Your task to perform on an android device: What's the weather? Image 0: 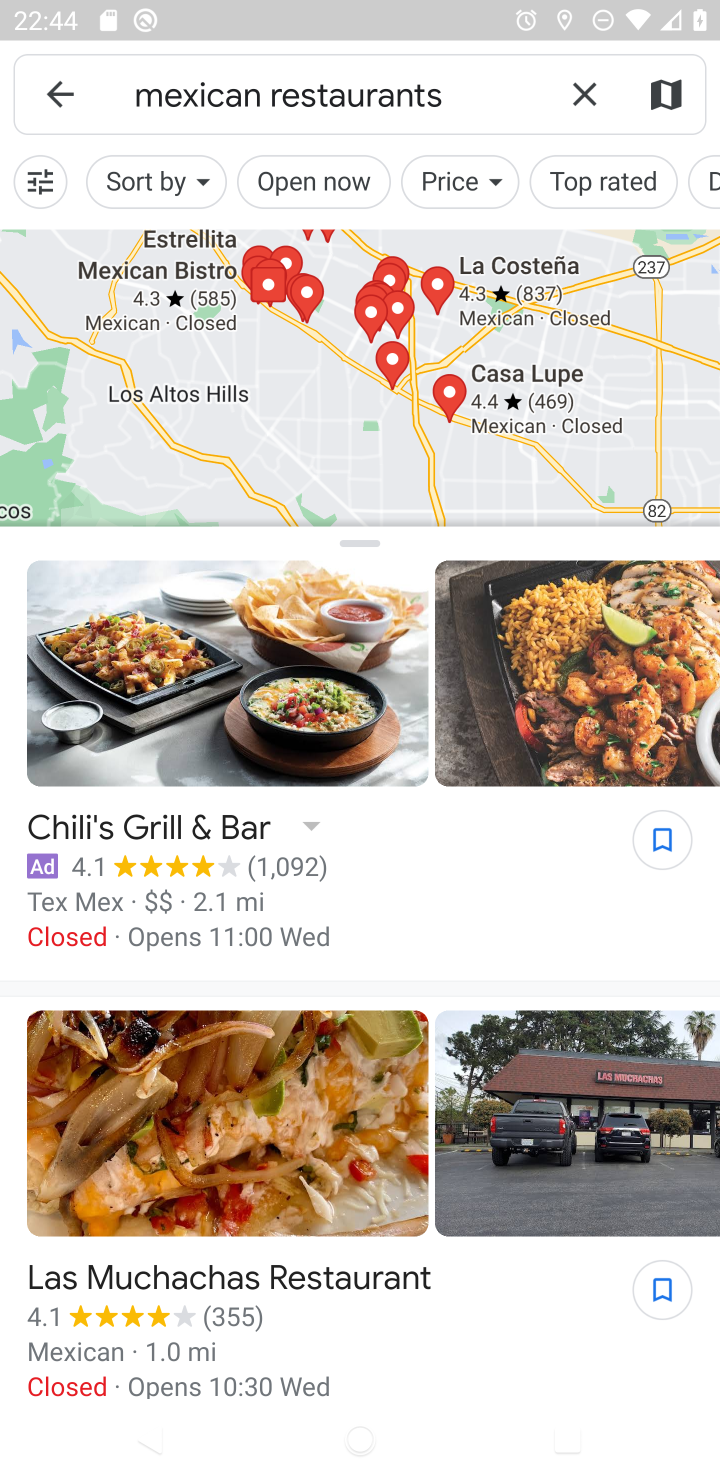
Step 0: press home button
Your task to perform on an android device: What's the weather? Image 1: 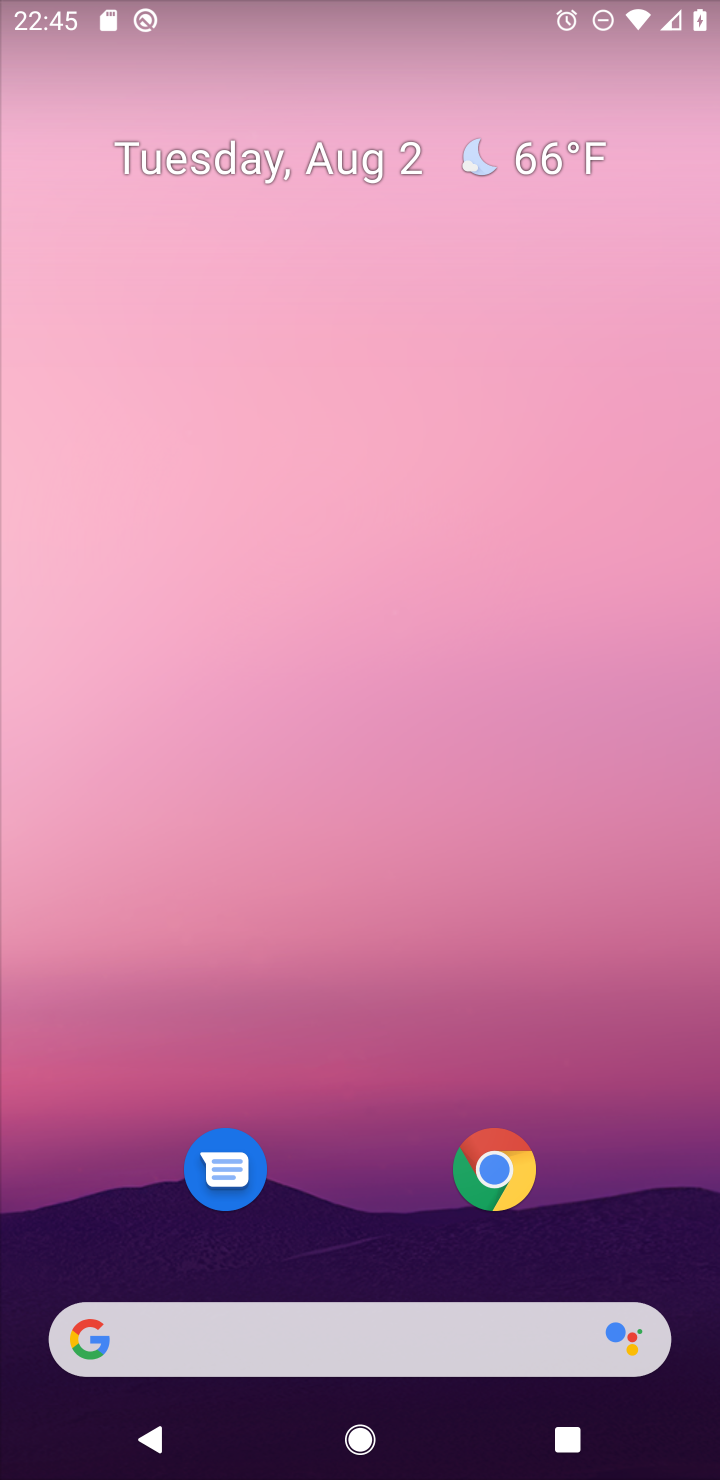
Step 1: click (471, 155)
Your task to perform on an android device: What's the weather? Image 2: 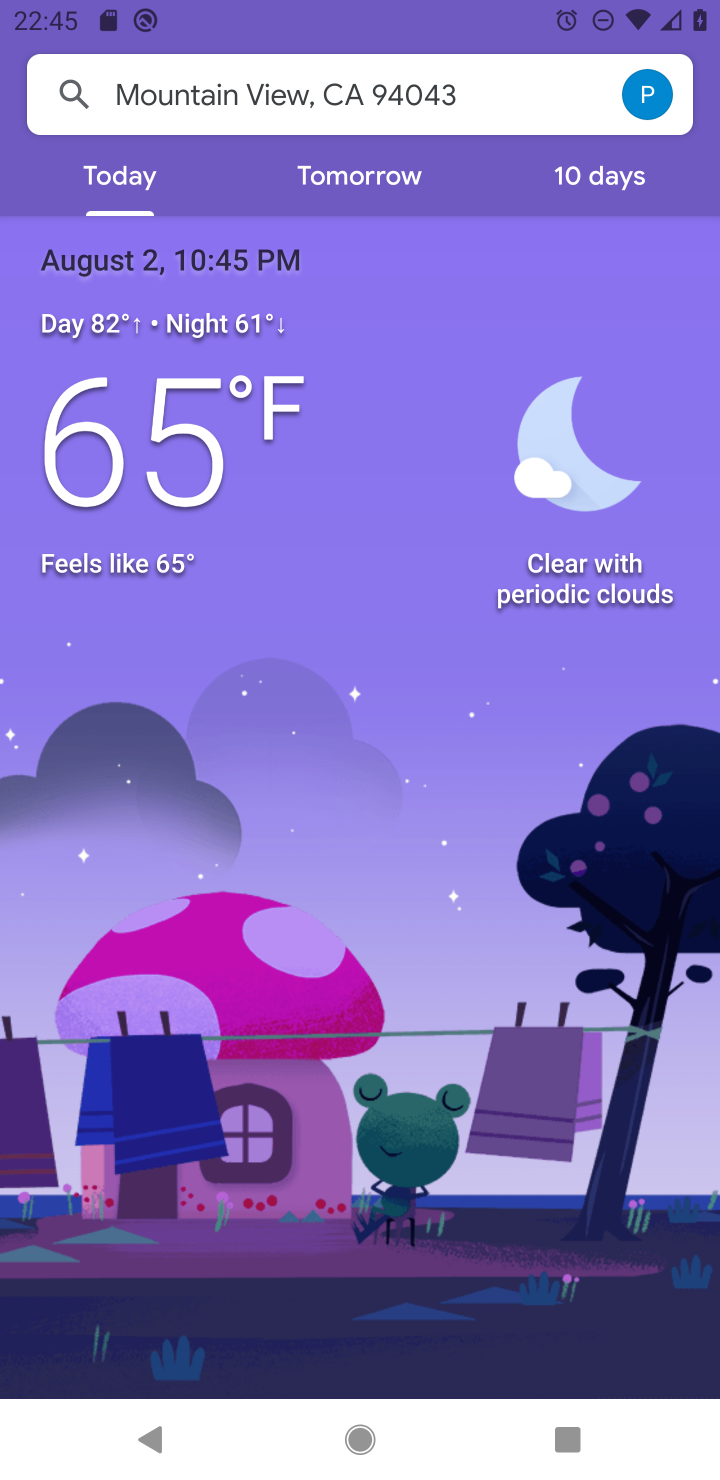
Step 2: task complete